Your task to perform on an android device: Go to calendar. Show me events next week Image 0: 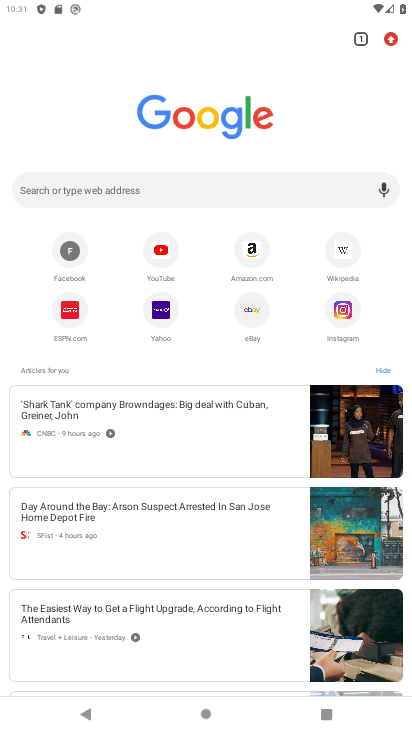
Step 0: press home button
Your task to perform on an android device: Go to calendar. Show me events next week Image 1: 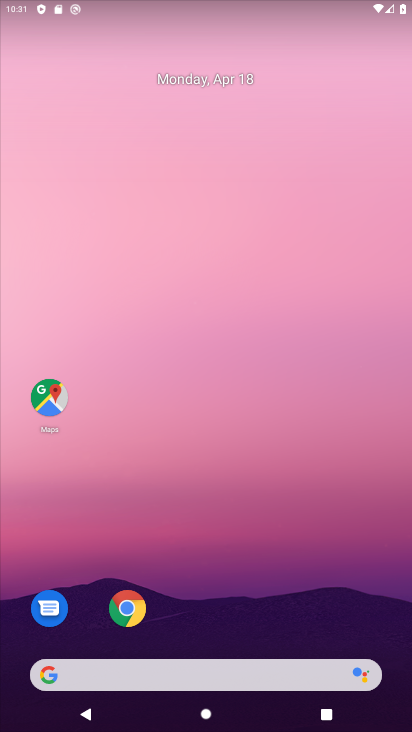
Step 1: drag from (253, 595) to (226, 141)
Your task to perform on an android device: Go to calendar. Show me events next week Image 2: 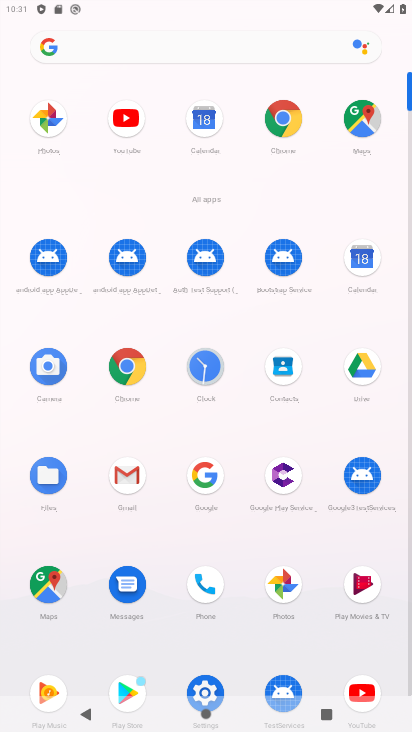
Step 2: click (361, 263)
Your task to perform on an android device: Go to calendar. Show me events next week Image 3: 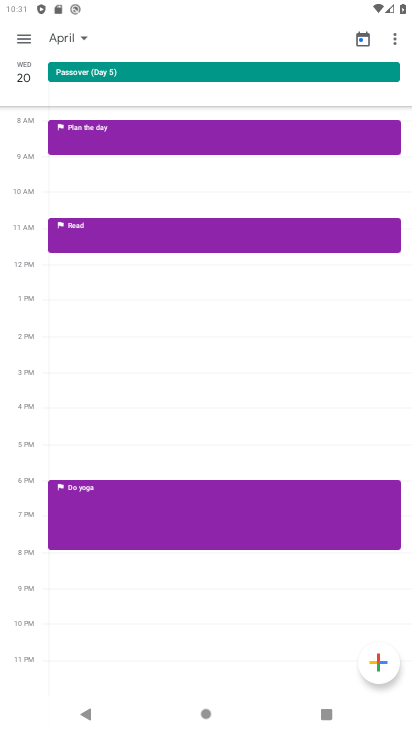
Step 3: click (26, 40)
Your task to perform on an android device: Go to calendar. Show me events next week Image 4: 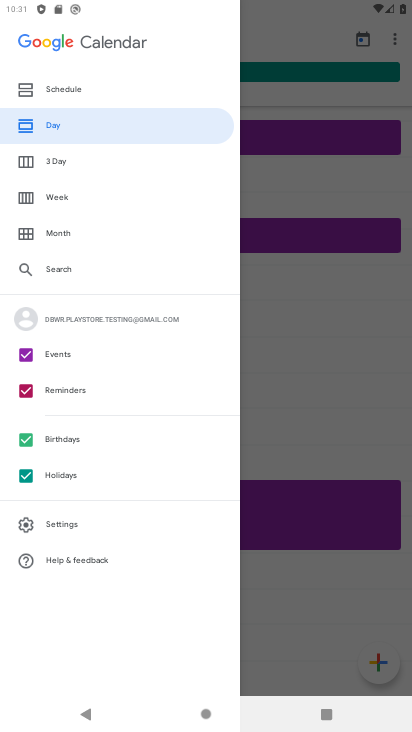
Step 4: click (76, 196)
Your task to perform on an android device: Go to calendar. Show me events next week Image 5: 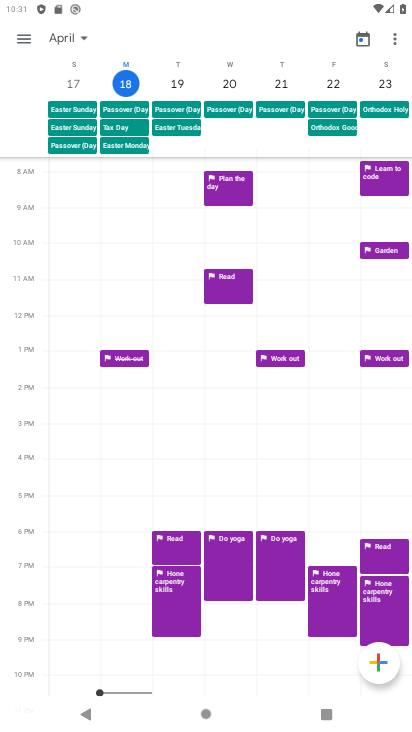
Step 5: click (77, 35)
Your task to perform on an android device: Go to calendar. Show me events next week Image 6: 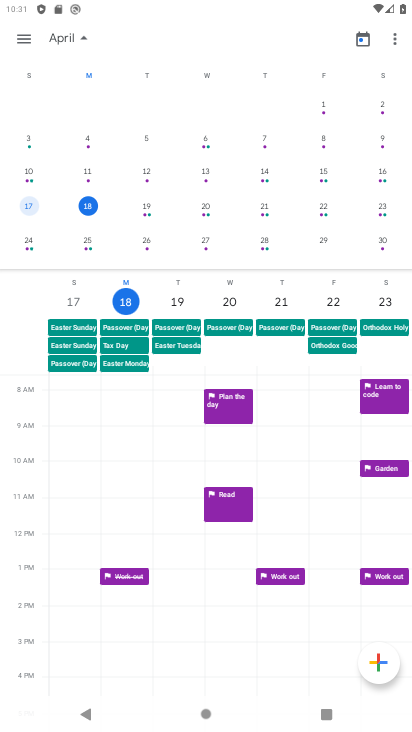
Step 6: click (147, 244)
Your task to perform on an android device: Go to calendar. Show me events next week Image 7: 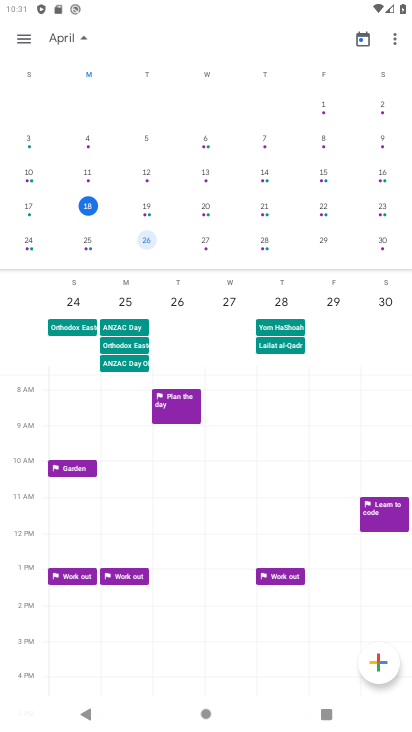
Step 7: click (79, 35)
Your task to perform on an android device: Go to calendar. Show me events next week Image 8: 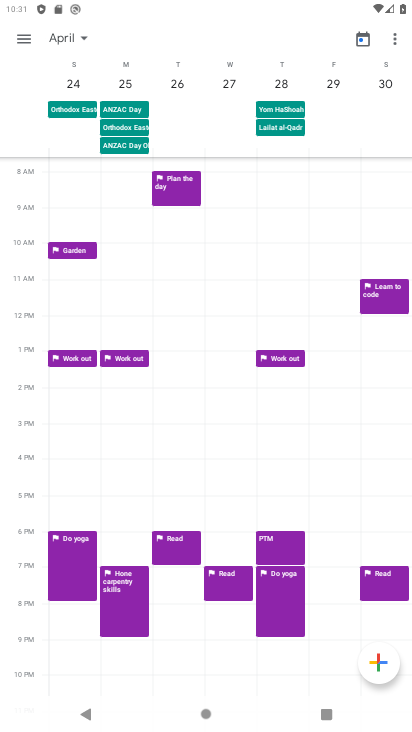
Step 8: task complete